Your task to perform on an android device: install app "Microsoft Excel" Image 0: 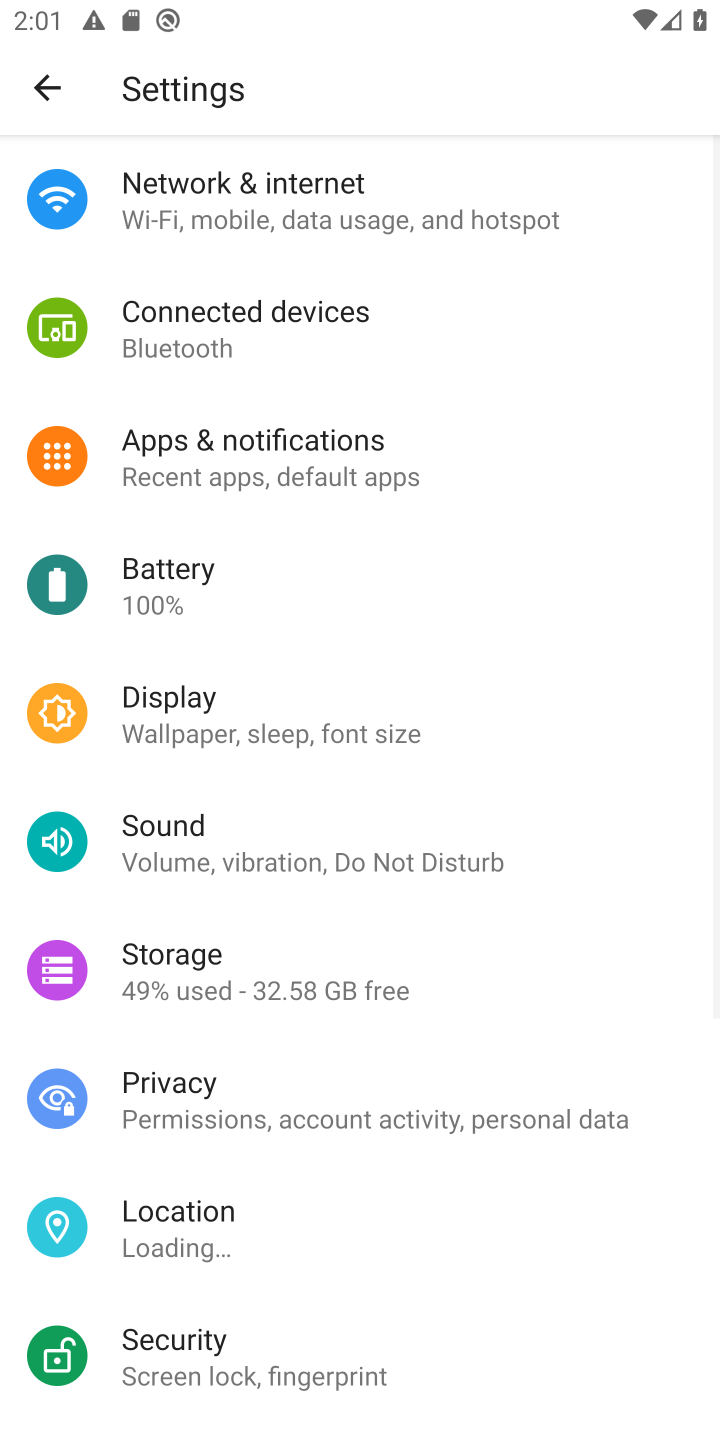
Step 0: press home button
Your task to perform on an android device: install app "Microsoft Excel" Image 1: 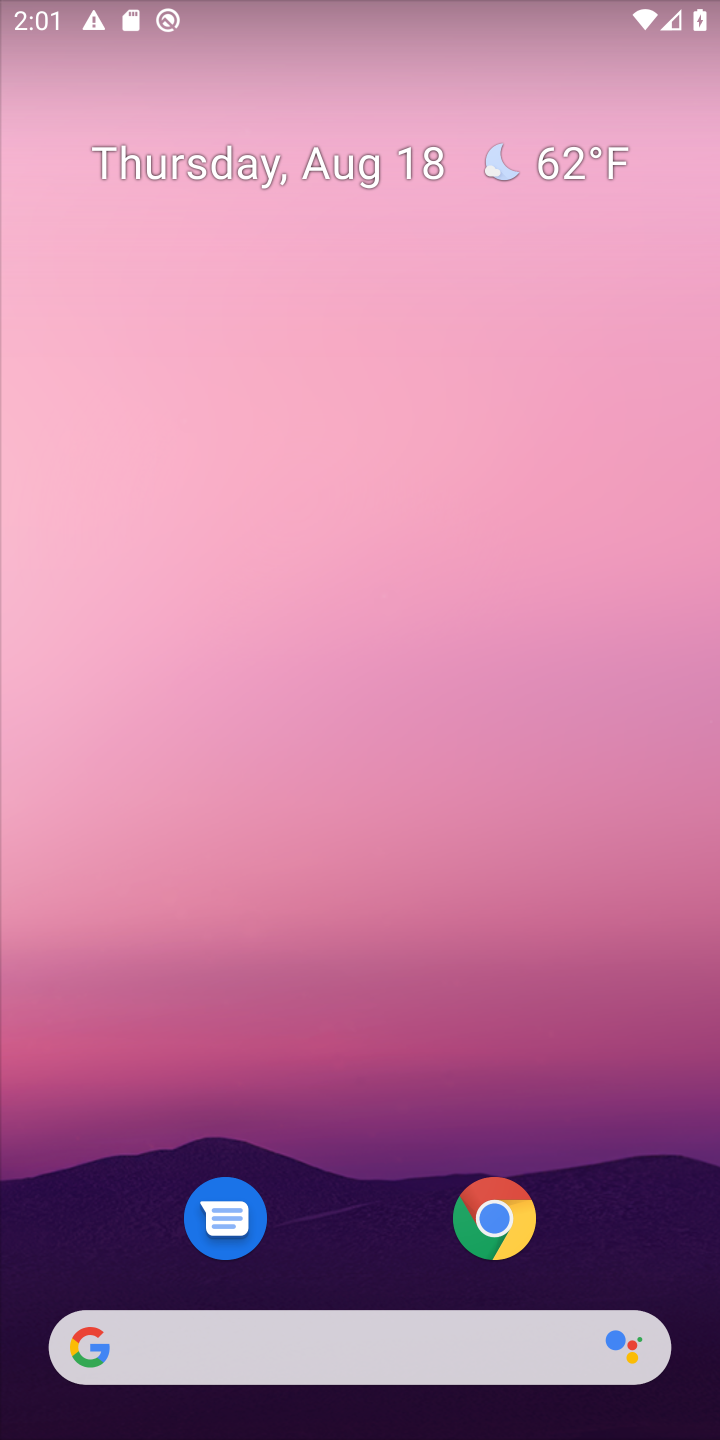
Step 1: drag from (319, 1002) to (343, 351)
Your task to perform on an android device: install app "Microsoft Excel" Image 2: 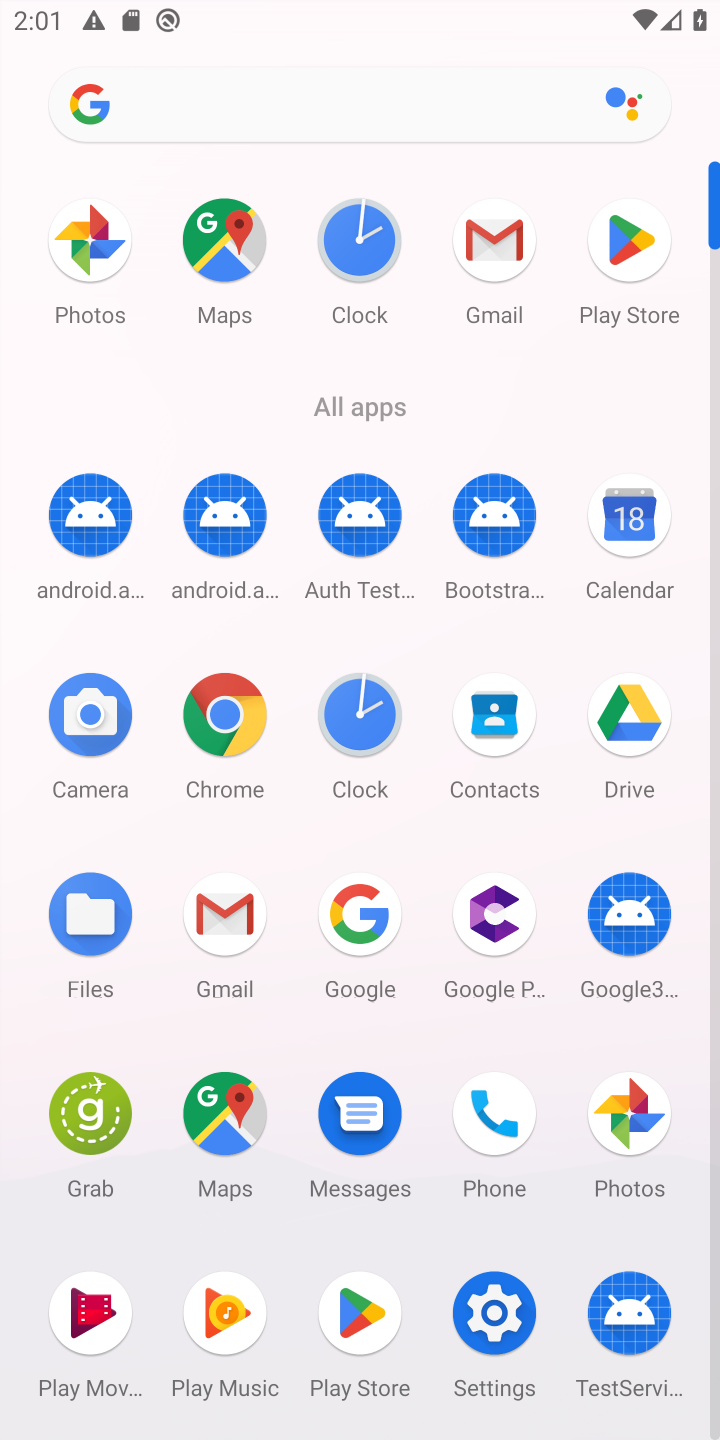
Step 2: click (640, 217)
Your task to perform on an android device: install app "Microsoft Excel" Image 3: 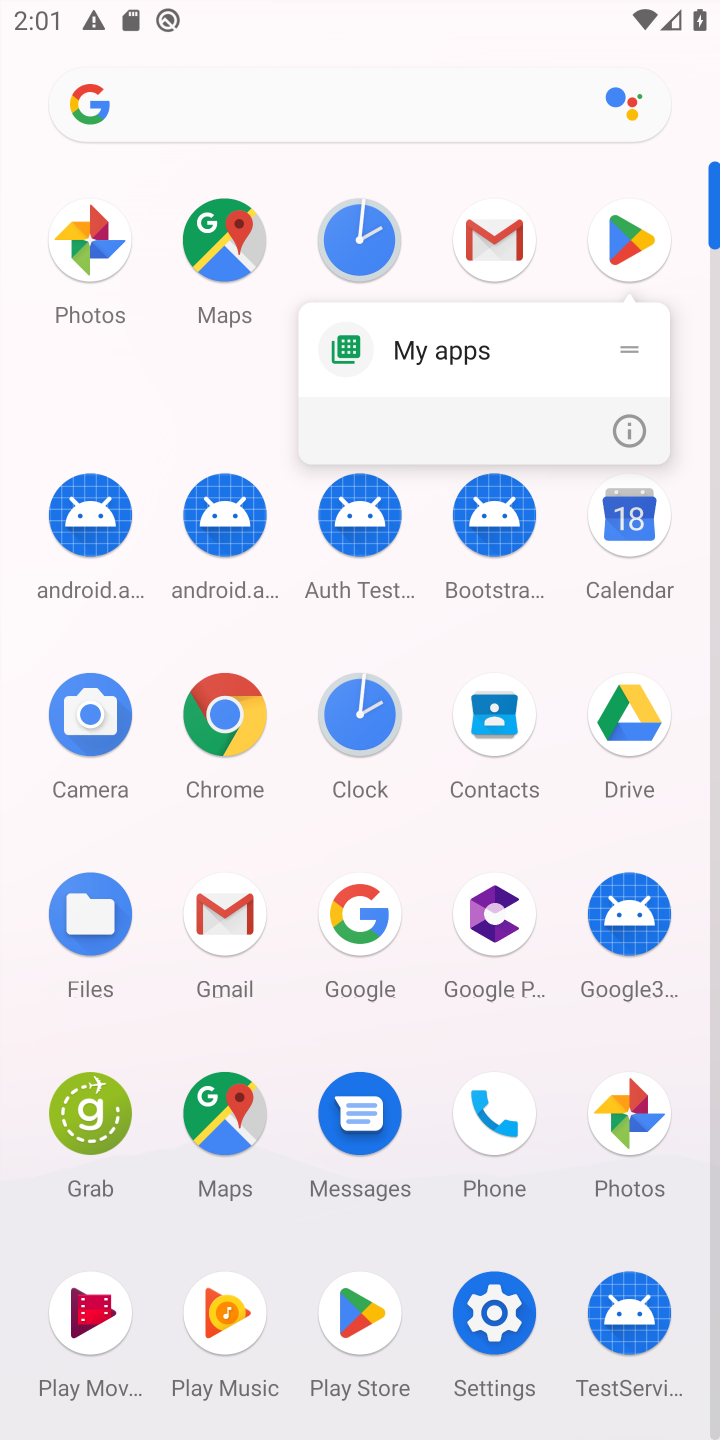
Step 3: click (627, 244)
Your task to perform on an android device: install app "Microsoft Excel" Image 4: 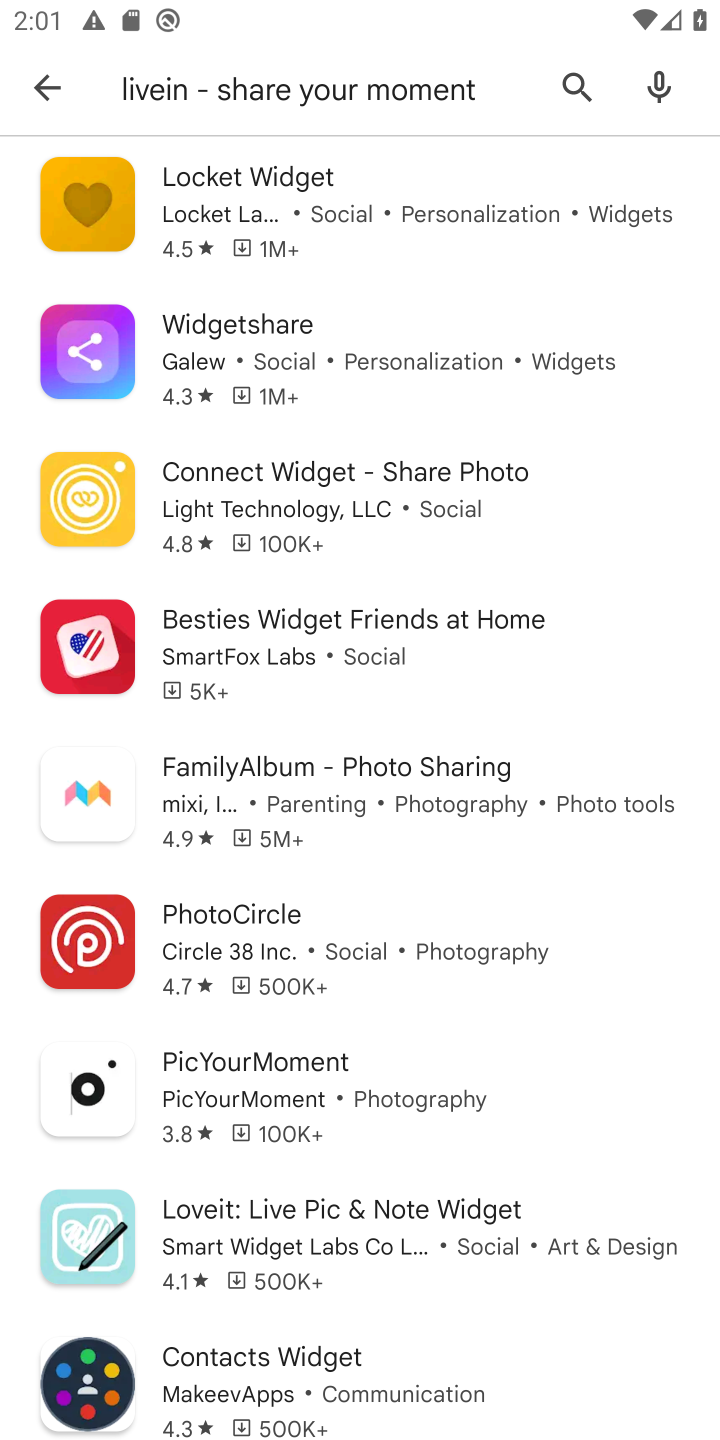
Step 4: click (579, 91)
Your task to perform on an android device: install app "Microsoft Excel" Image 5: 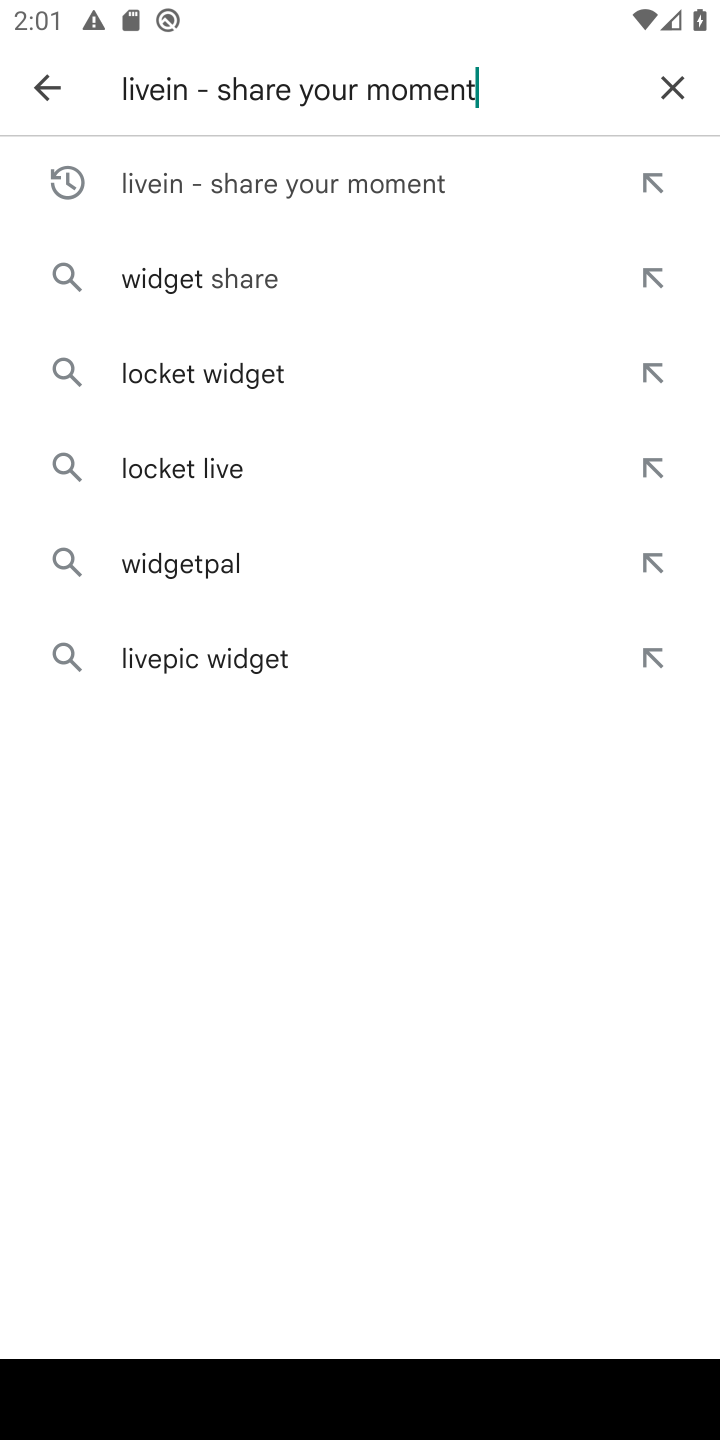
Step 5: click (667, 69)
Your task to perform on an android device: install app "Microsoft Excel" Image 6: 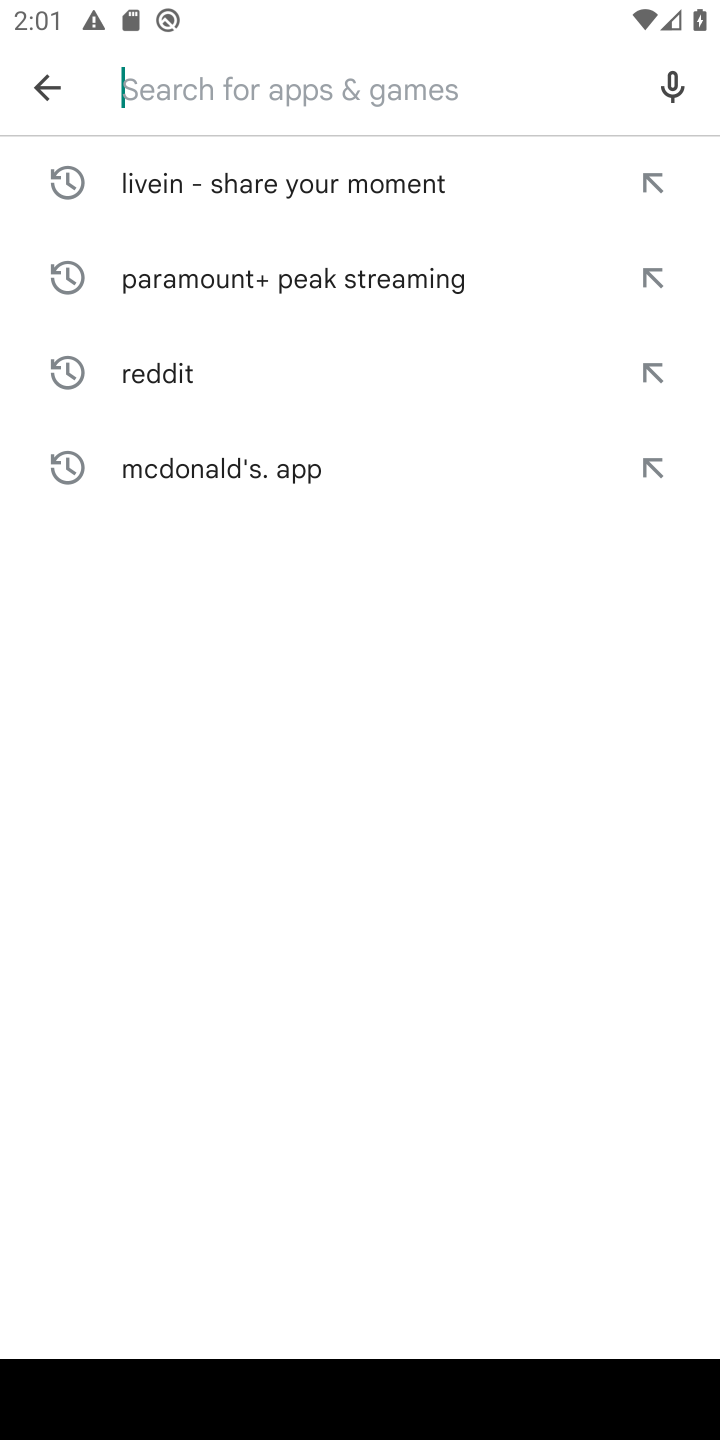
Step 6: type "Microsoft Excel"
Your task to perform on an android device: install app "Microsoft Excel" Image 7: 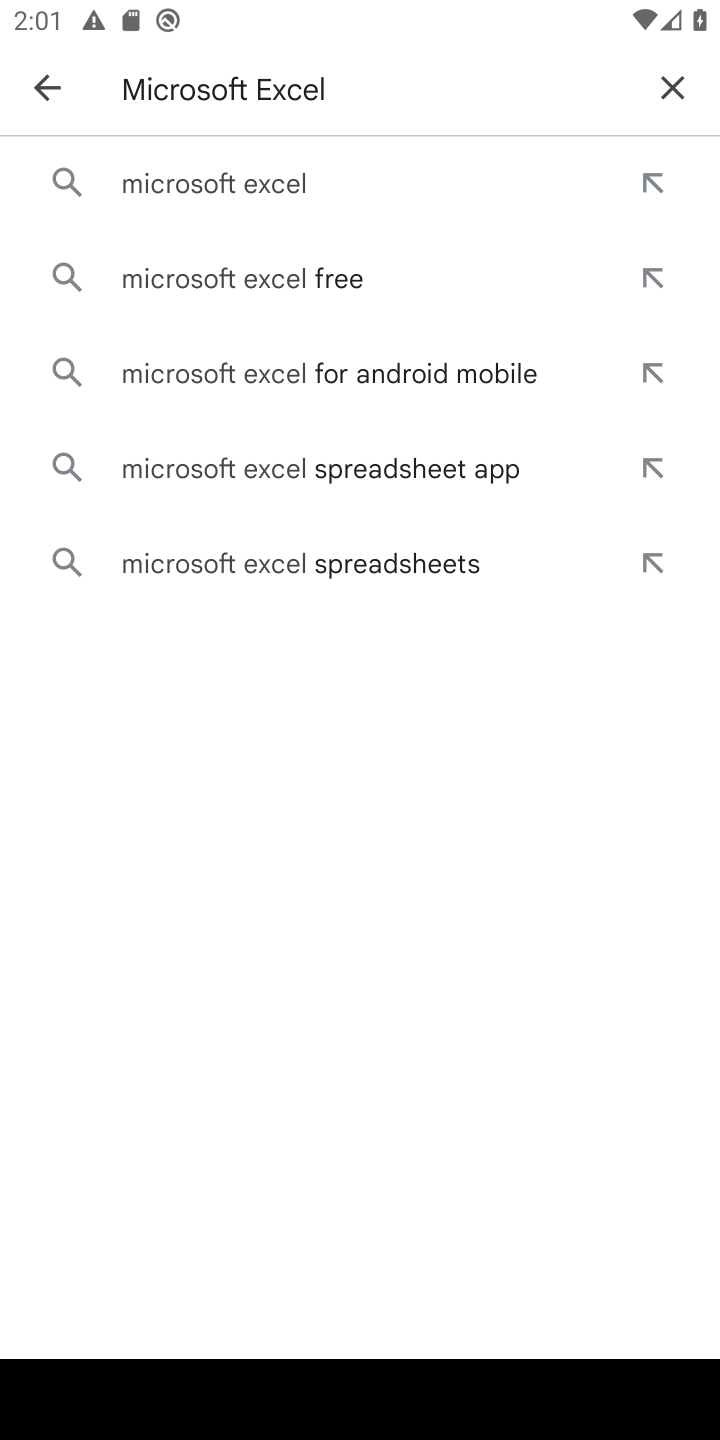
Step 7: click (291, 158)
Your task to perform on an android device: install app "Microsoft Excel" Image 8: 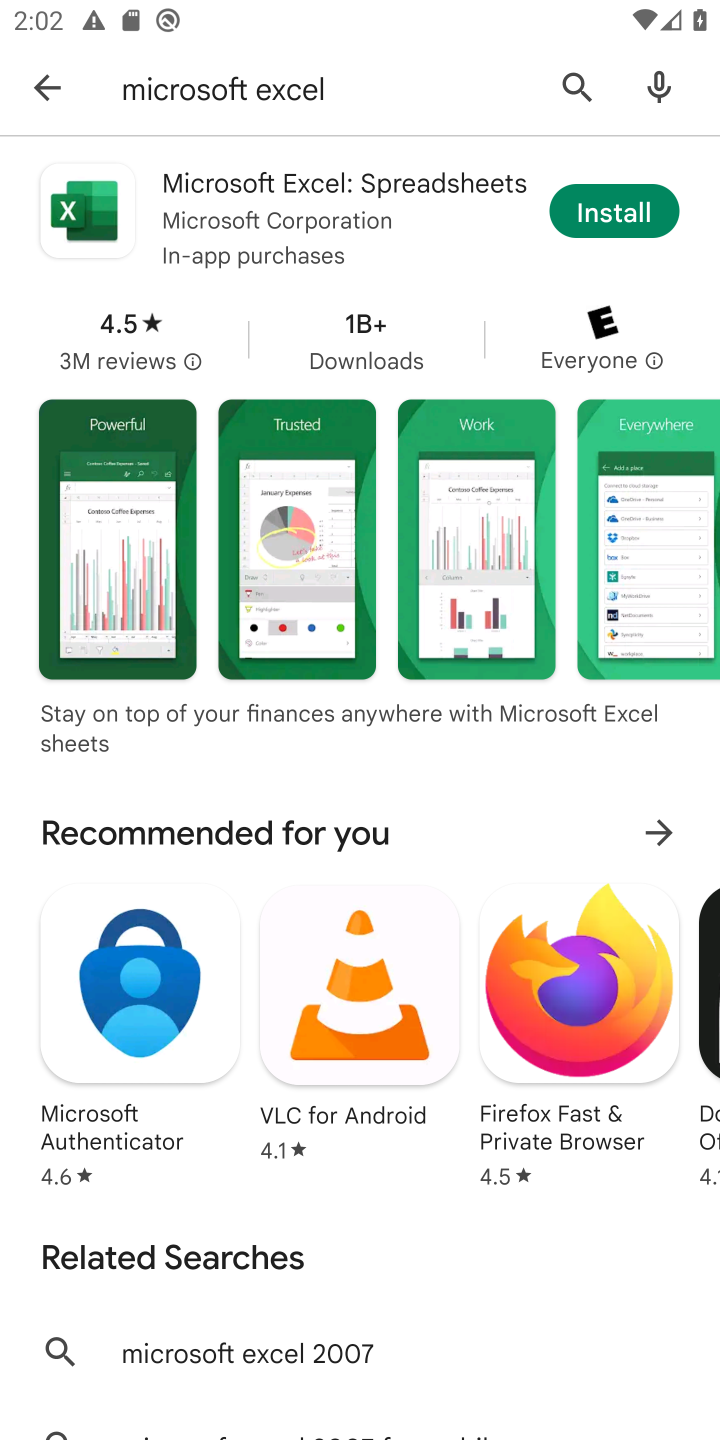
Step 8: click (607, 219)
Your task to perform on an android device: install app "Microsoft Excel" Image 9: 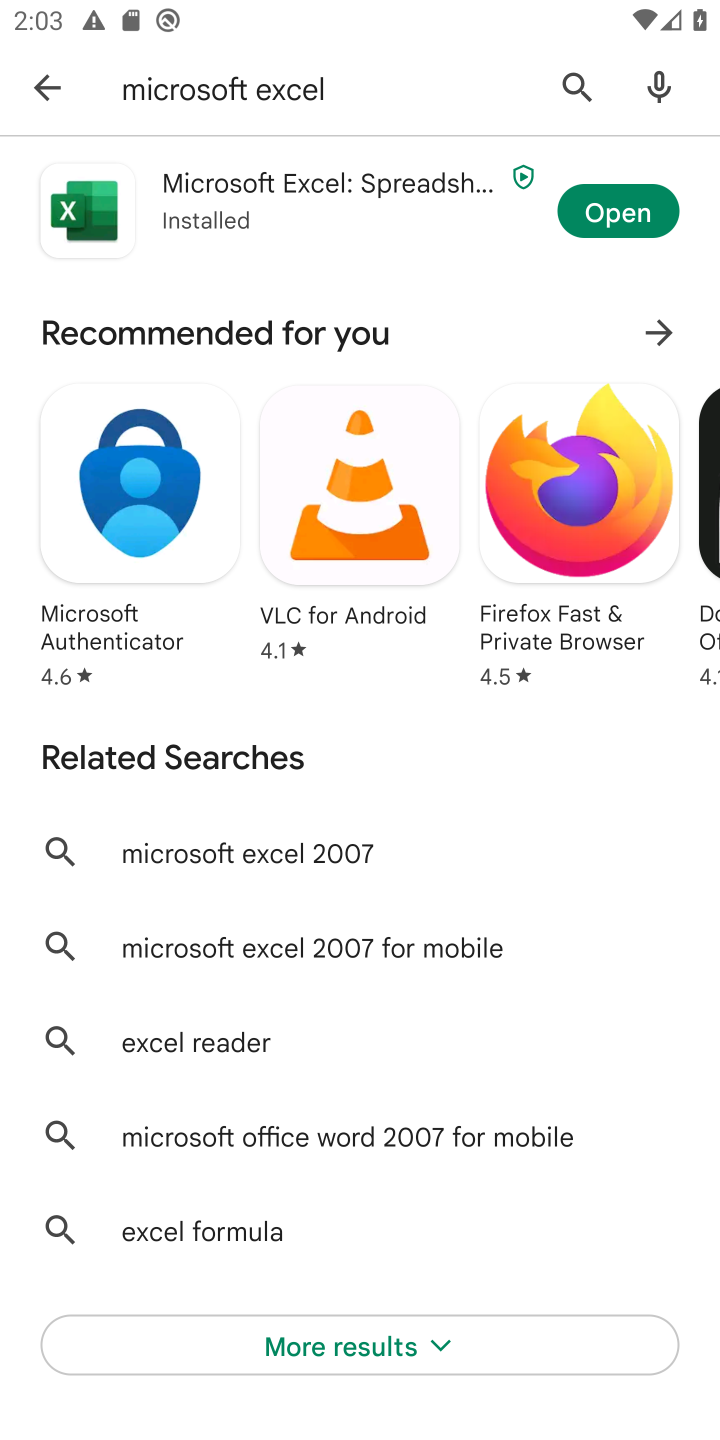
Step 9: task complete